Your task to perform on an android device: Open Chrome and go to settings Image 0: 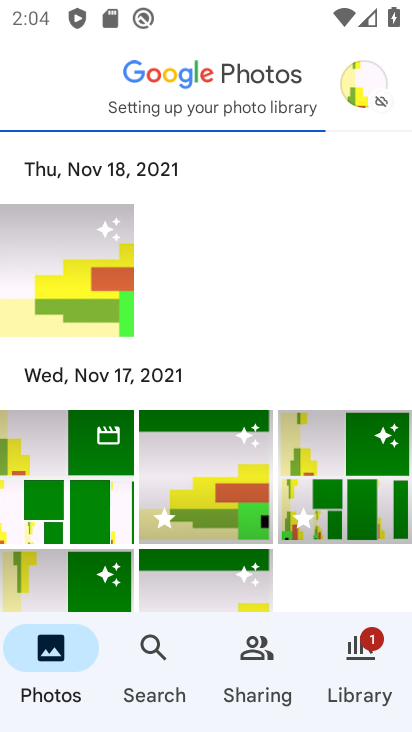
Step 0: press home button
Your task to perform on an android device: Open Chrome and go to settings Image 1: 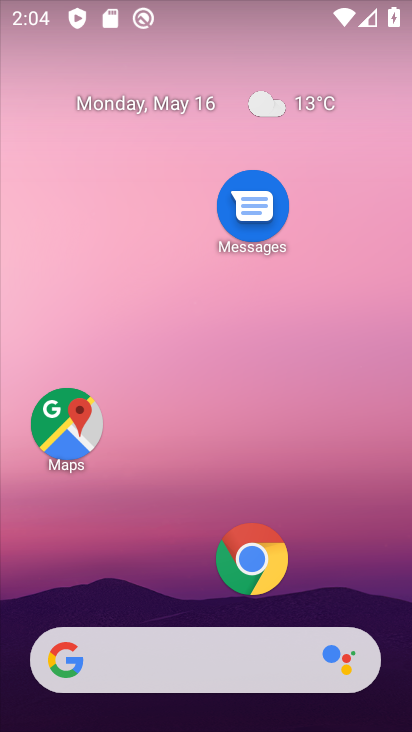
Step 1: click (254, 559)
Your task to perform on an android device: Open Chrome and go to settings Image 2: 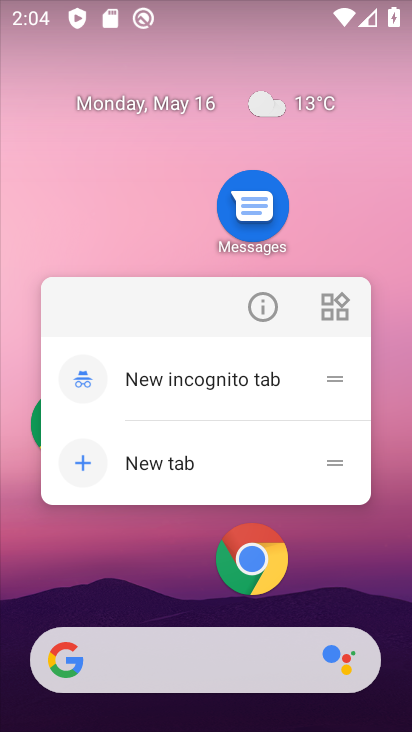
Step 2: click (244, 557)
Your task to perform on an android device: Open Chrome and go to settings Image 3: 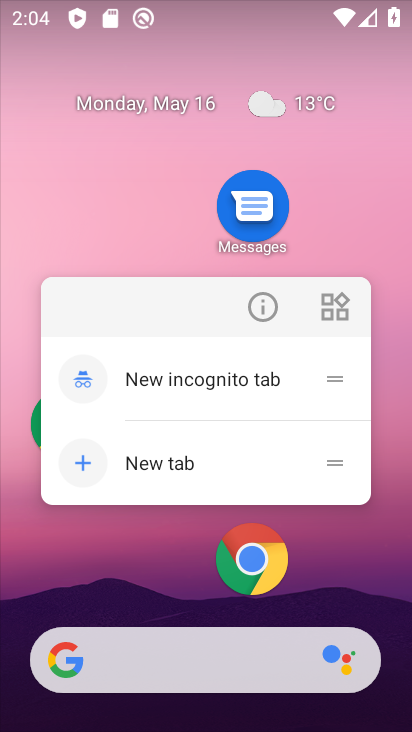
Step 3: click (246, 561)
Your task to perform on an android device: Open Chrome and go to settings Image 4: 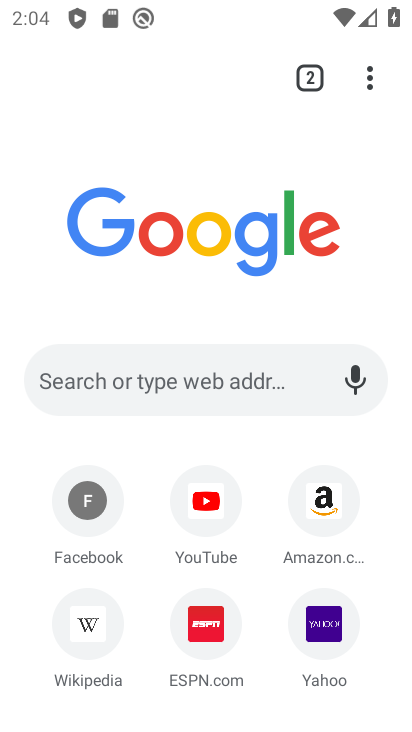
Step 4: click (368, 83)
Your task to perform on an android device: Open Chrome and go to settings Image 5: 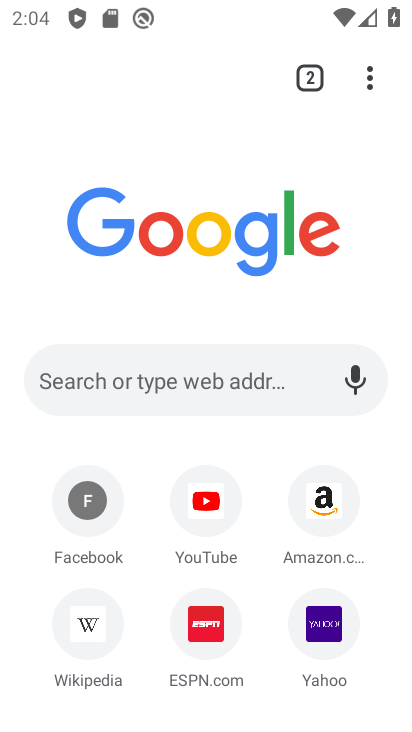
Step 5: click (374, 83)
Your task to perform on an android device: Open Chrome and go to settings Image 6: 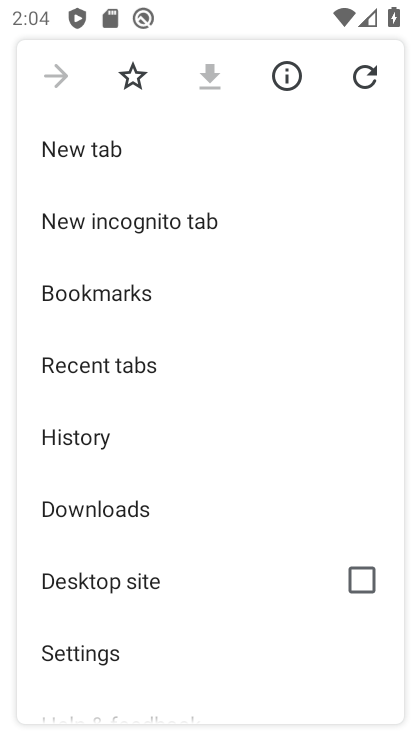
Step 6: click (89, 651)
Your task to perform on an android device: Open Chrome and go to settings Image 7: 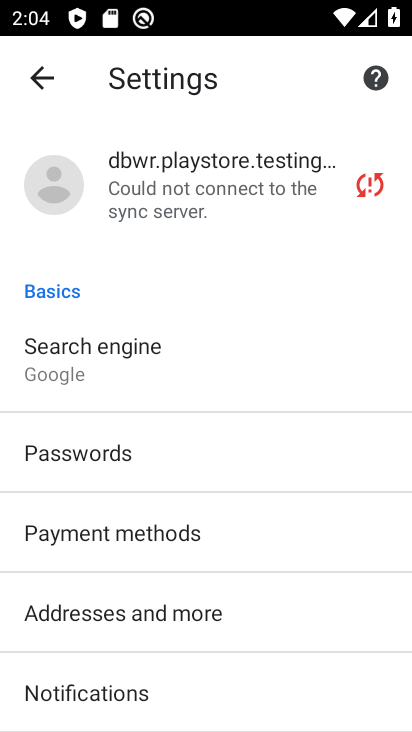
Step 7: task complete